Your task to perform on an android device: move a message to another label in the gmail app Image 0: 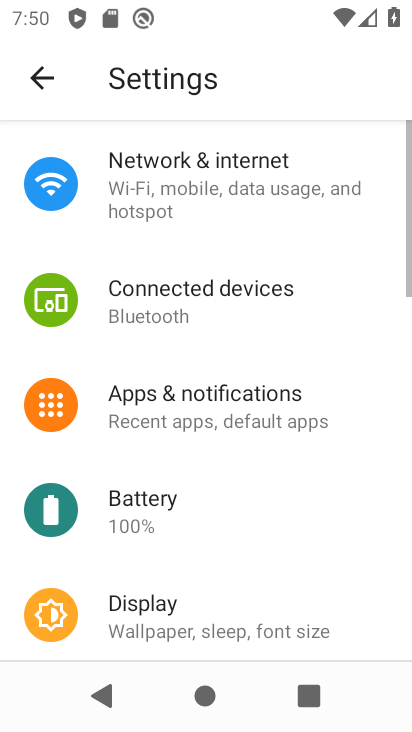
Step 0: press home button
Your task to perform on an android device: move a message to another label in the gmail app Image 1: 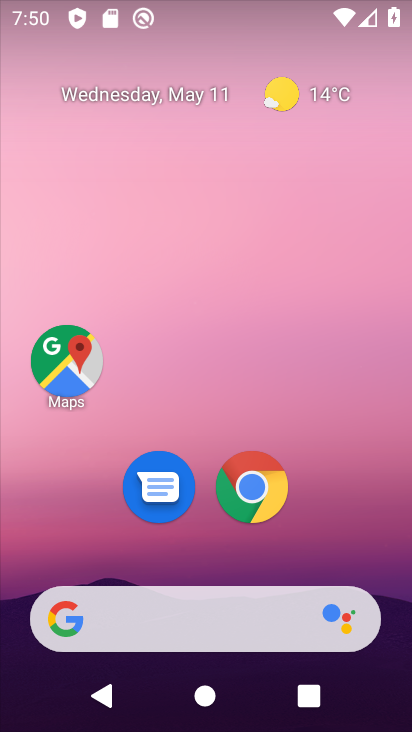
Step 1: drag from (262, 556) to (345, 175)
Your task to perform on an android device: move a message to another label in the gmail app Image 2: 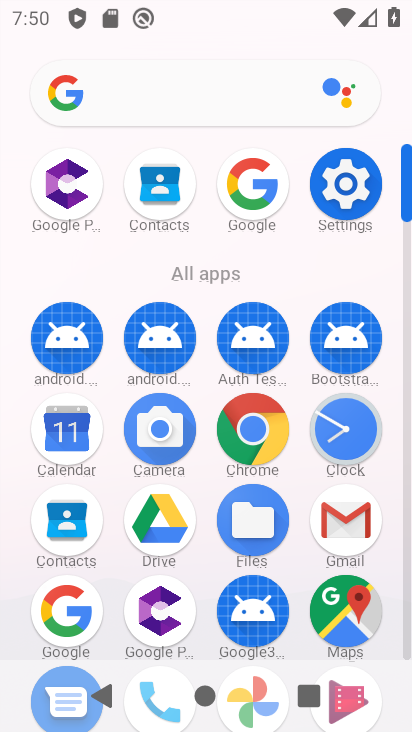
Step 2: click (345, 508)
Your task to perform on an android device: move a message to another label in the gmail app Image 3: 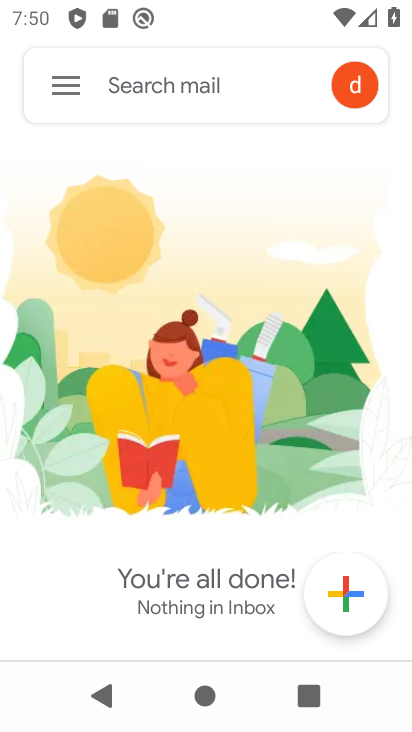
Step 3: task complete